Your task to perform on an android device: turn notification dots on Image 0: 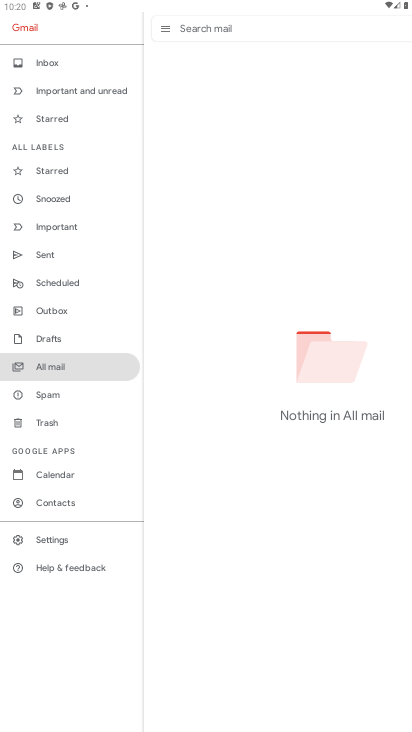
Step 0: task complete